Your task to perform on an android device: Open privacy settings Image 0: 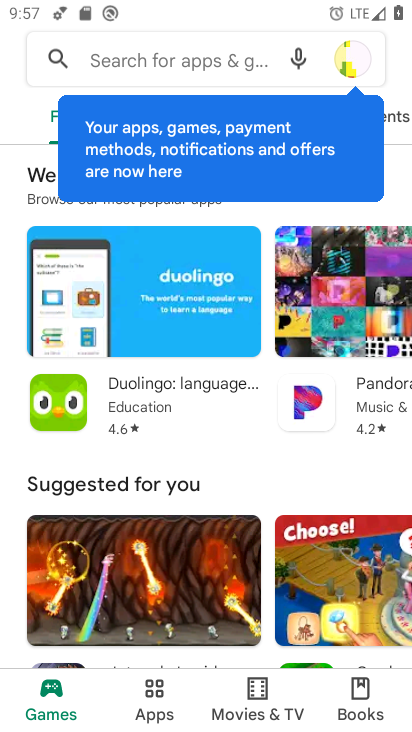
Step 0: press home button
Your task to perform on an android device: Open privacy settings Image 1: 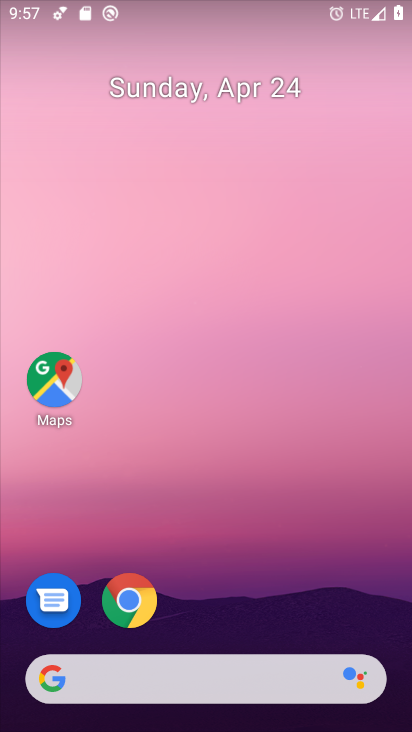
Step 1: drag from (200, 593) to (234, 63)
Your task to perform on an android device: Open privacy settings Image 2: 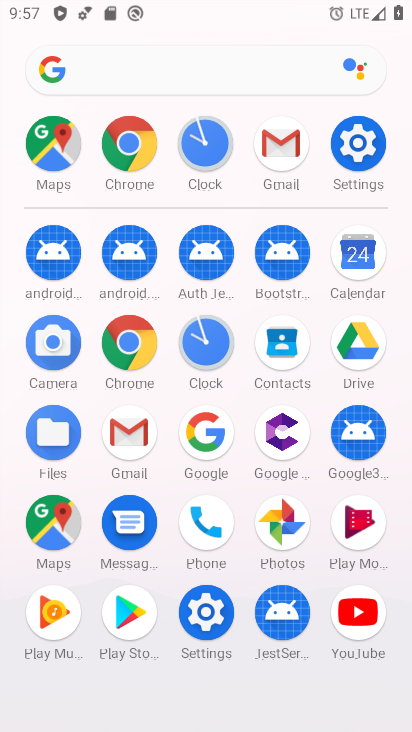
Step 2: click (358, 155)
Your task to perform on an android device: Open privacy settings Image 3: 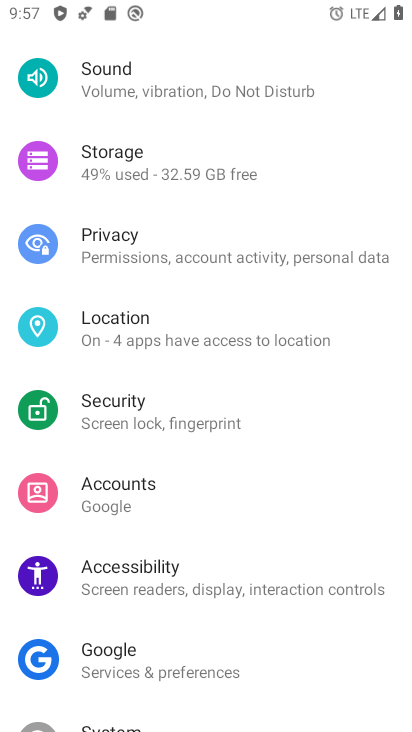
Step 3: click (168, 260)
Your task to perform on an android device: Open privacy settings Image 4: 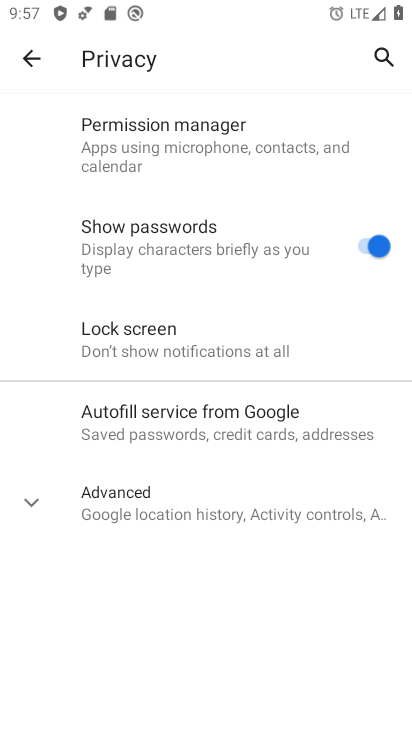
Step 4: task complete